Your task to perform on an android device: open chrome and create a bookmark for the current page Image 0: 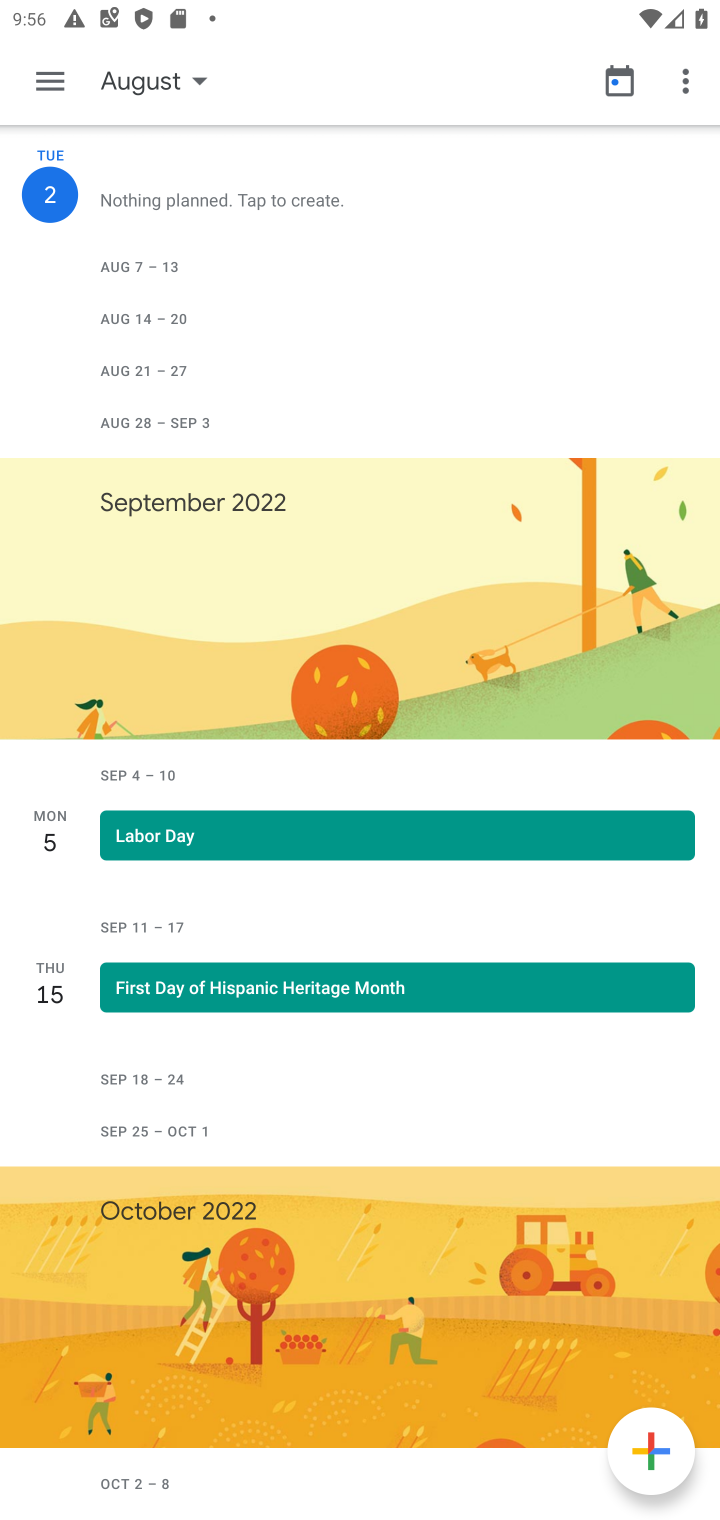
Step 0: press home button
Your task to perform on an android device: open chrome and create a bookmark for the current page Image 1: 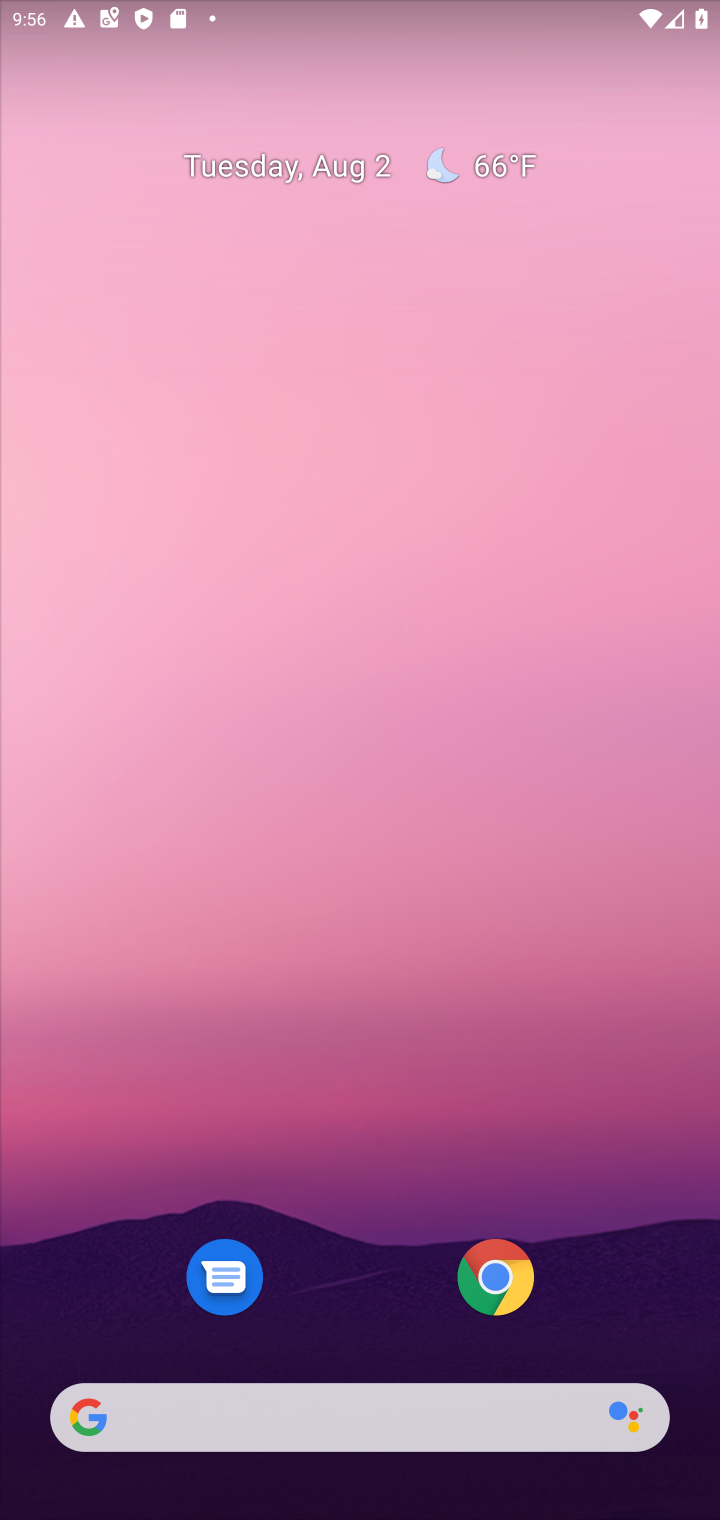
Step 1: click (495, 1274)
Your task to perform on an android device: open chrome and create a bookmark for the current page Image 2: 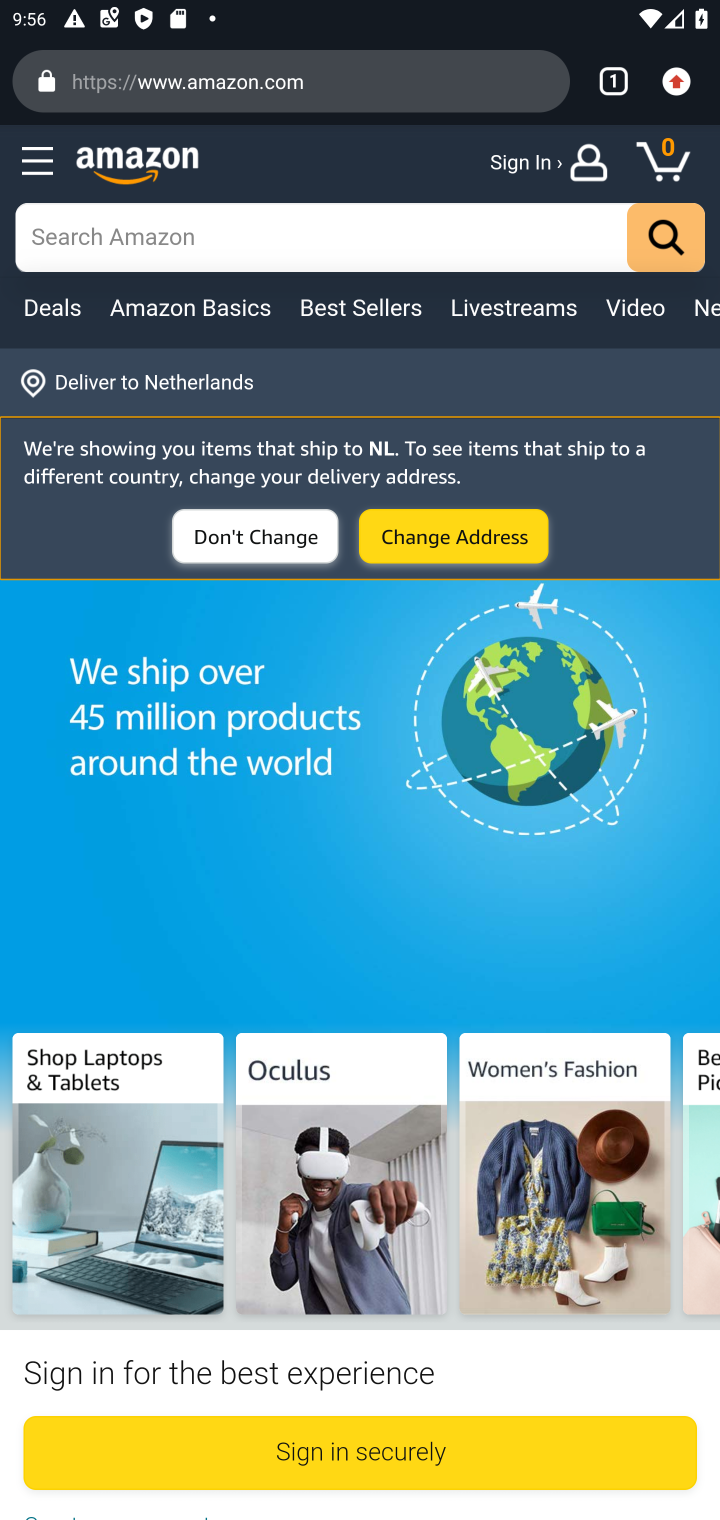
Step 2: task complete